Your task to perform on an android device: change text size in settings app Image 0: 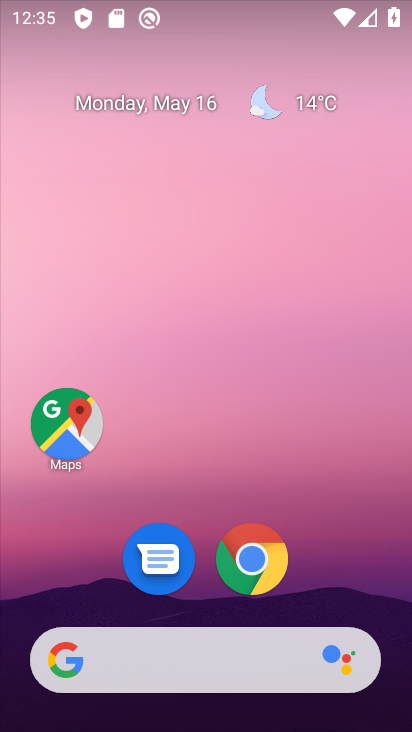
Step 0: drag from (349, 543) to (340, 143)
Your task to perform on an android device: change text size in settings app Image 1: 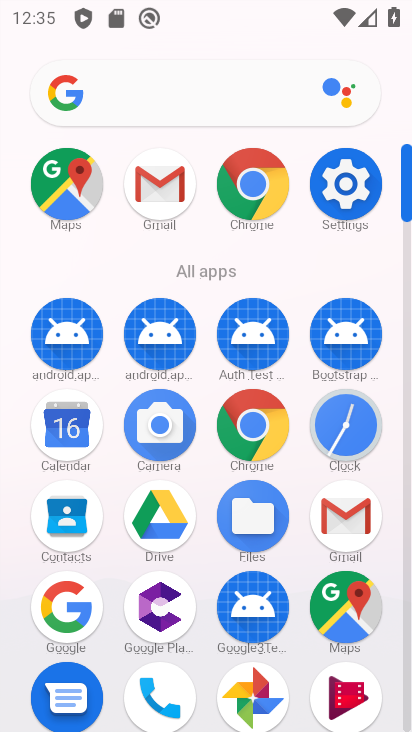
Step 1: click (332, 173)
Your task to perform on an android device: change text size in settings app Image 2: 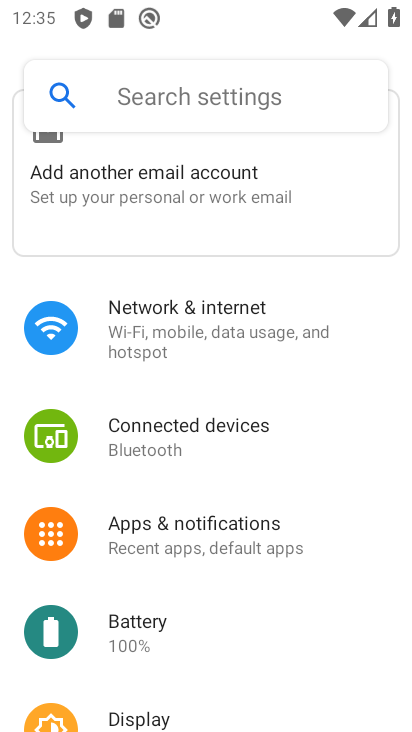
Step 2: drag from (183, 353) to (188, 200)
Your task to perform on an android device: change text size in settings app Image 3: 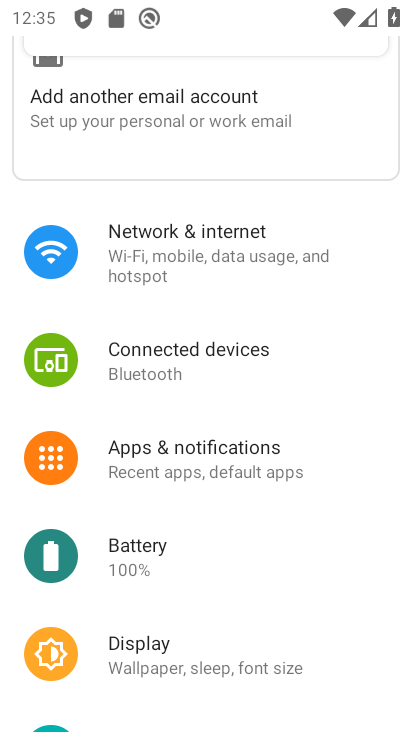
Step 3: click (210, 672)
Your task to perform on an android device: change text size in settings app Image 4: 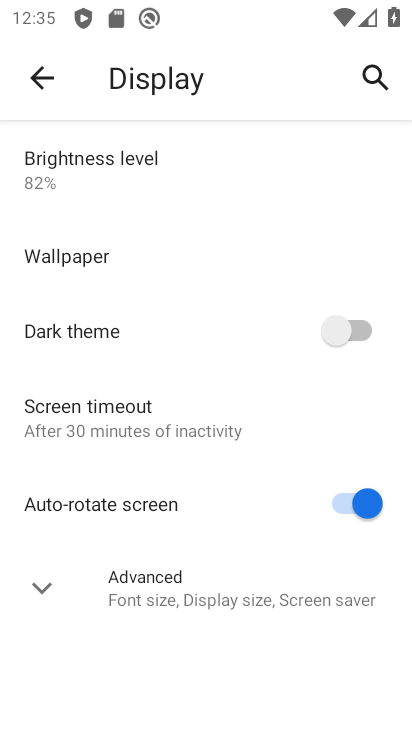
Step 4: click (168, 600)
Your task to perform on an android device: change text size in settings app Image 5: 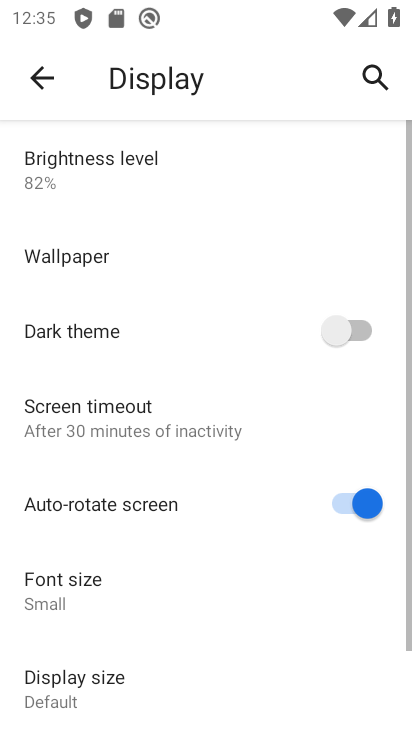
Step 5: drag from (172, 595) to (205, 167)
Your task to perform on an android device: change text size in settings app Image 6: 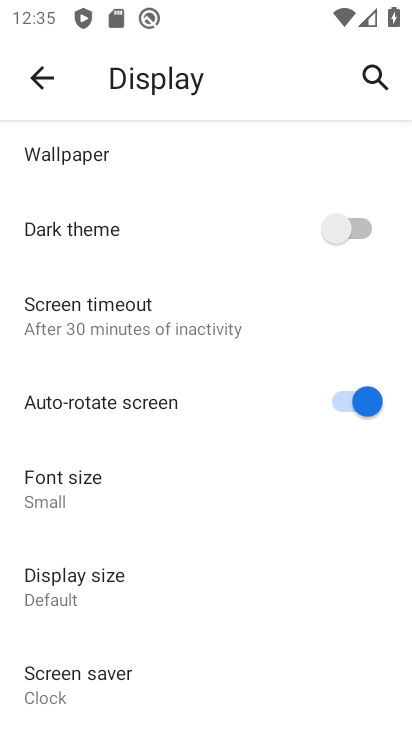
Step 6: click (65, 470)
Your task to perform on an android device: change text size in settings app Image 7: 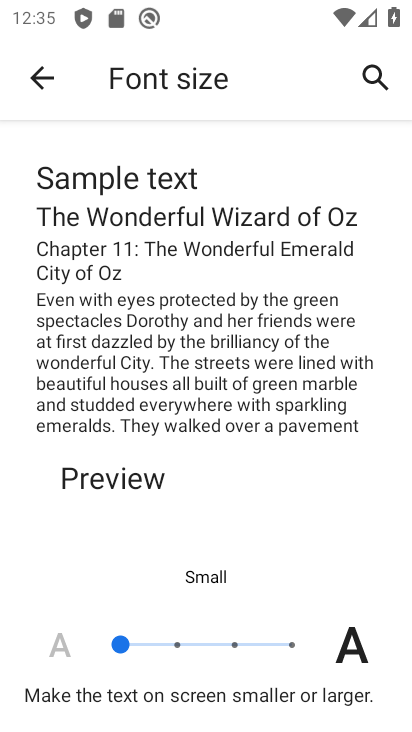
Step 7: click (198, 648)
Your task to perform on an android device: change text size in settings app Image 8: 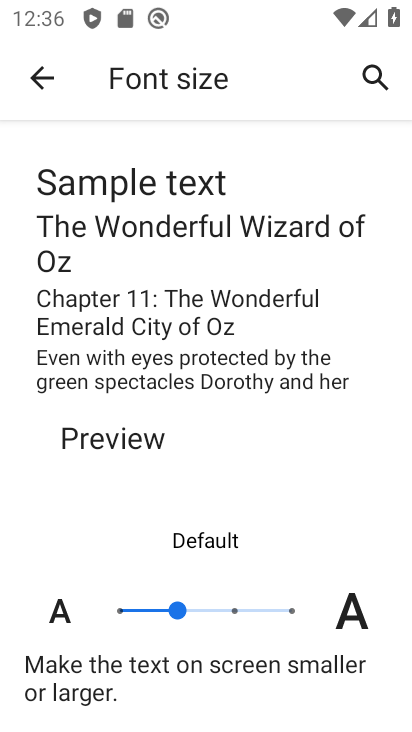
Step 8: click (203, 607)
Your task to perform on an android device: change text size in settings app Image 9: 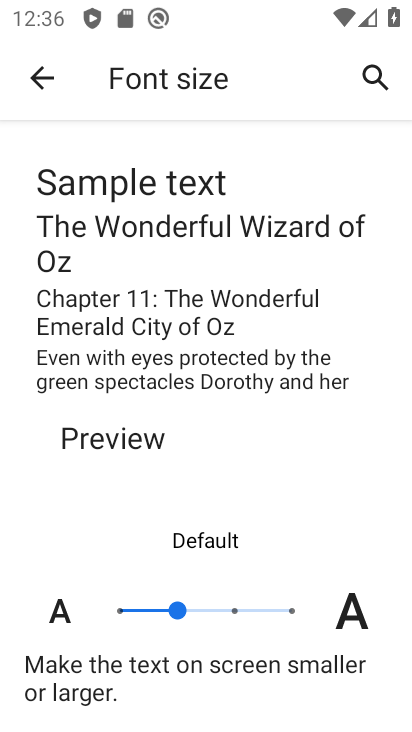
Step 9: click (215, 604)
Your task to perform on an android device: change text size in settings app Image 10: 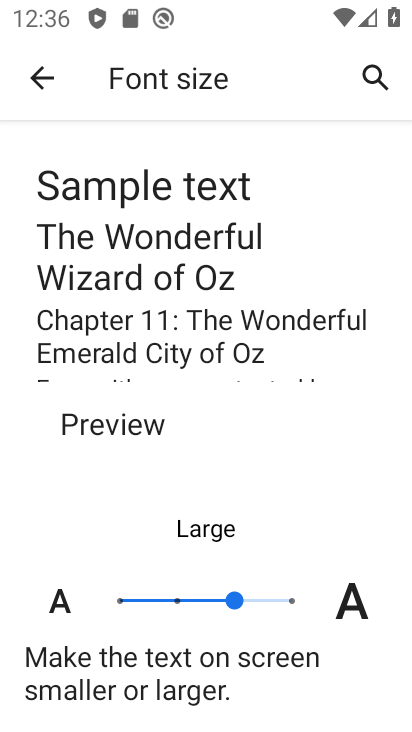
Step 10: task complete